Your task to perform on an android device: What's the weather today? Image 0: 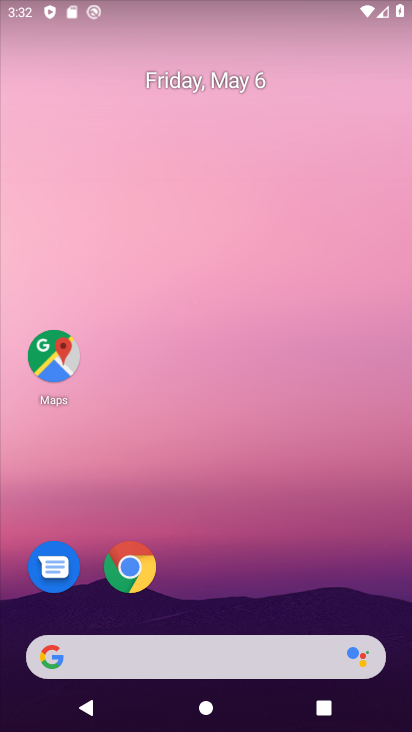
Step 0: drag from (249, 663) to (66, 29)
Your task to perform on an android device: What's the weather today? Image 1: 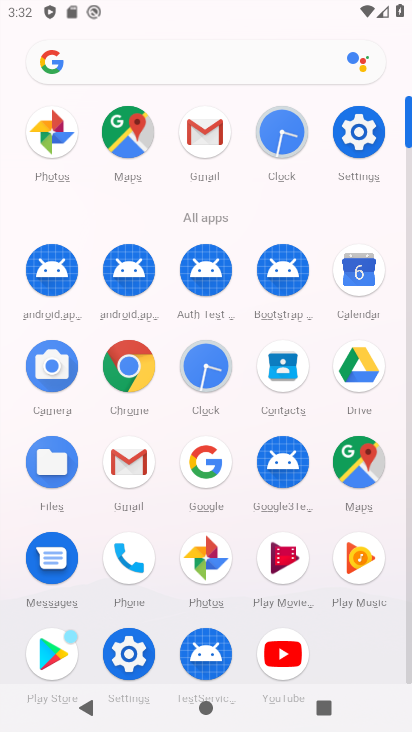
Step 1: click (197, 483)
Your task to perform on an android device: What's the weather today? Image 2: 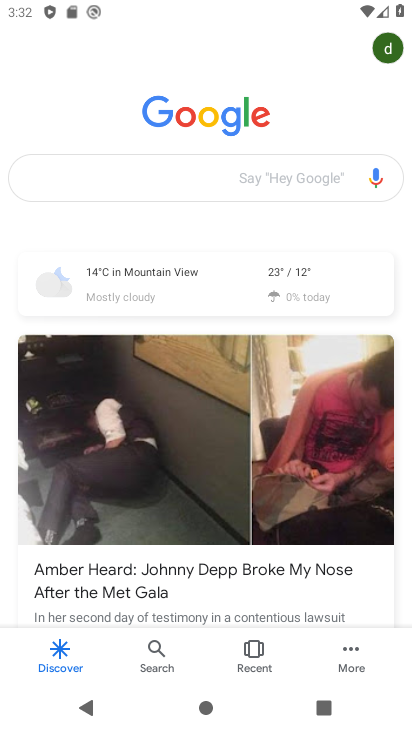
Step 2: click (291, 288)
Your task to perform on an android device: What's the weather today? Image 3: 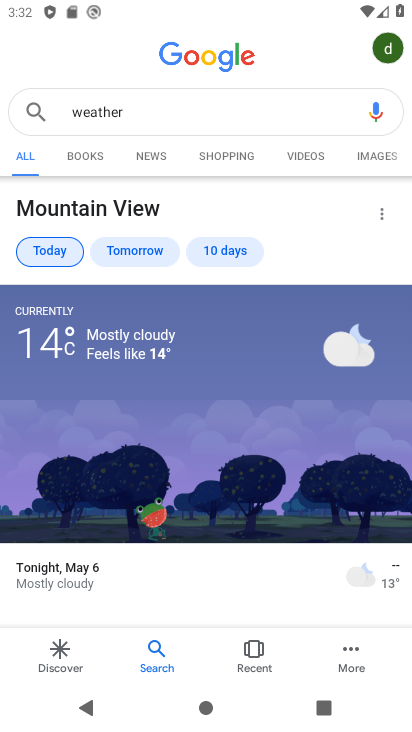
Step 3: task complete